Your task to perform on an android device: change the clock display to analog Image 0: 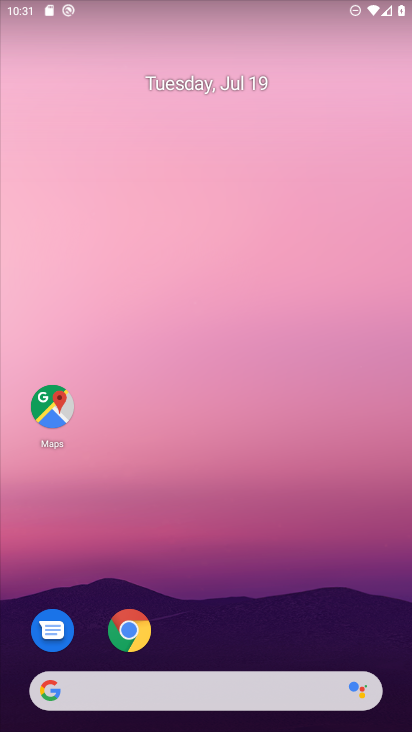
Step 0: drag from (182, 592) to (183, 154)
Your task to perform on an android device: change the clock display to analog Image 1: 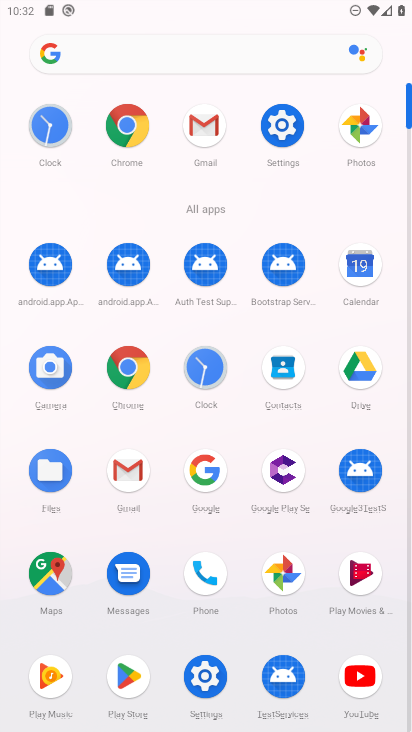
Step 1: click (217, 374)
Your task to perform on an android device: change the clock display to analog Image 2: 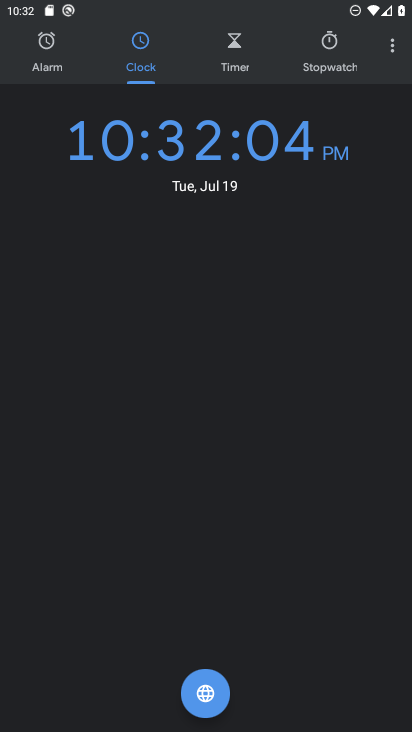
Step 2: click (395, 38)
Your task to perform on an android device: change the clock display to analog Image 3: 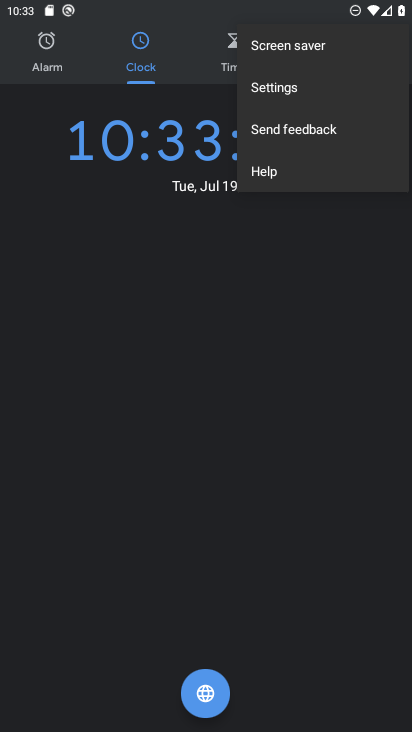
Step 3: press home button
Your task to perform on an android device: change the clock display to analog Image 4: 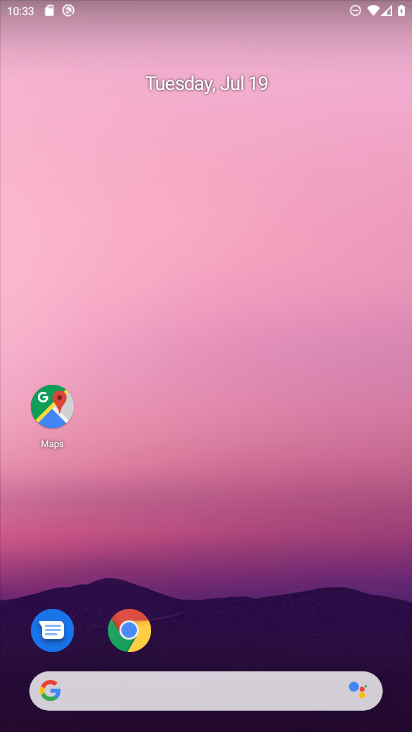
Step 4: drag from (225, 631) to (234, 172)
Your task to perform on an android device: change the clock display to analog Image 5: 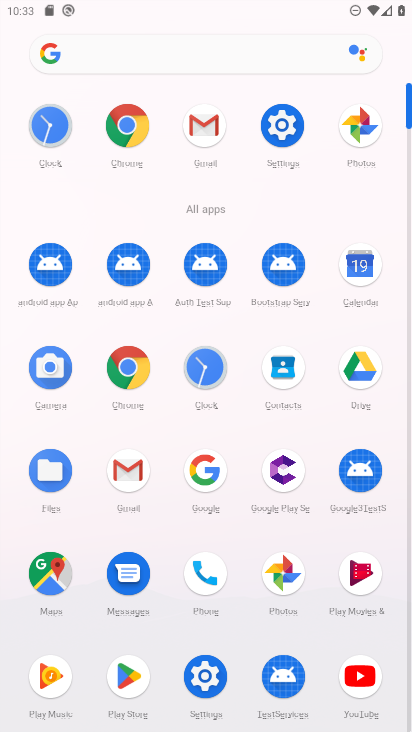
Step 5: click (218, 379)
Your task to perform on an android device: change the clock display to analog Image 6: 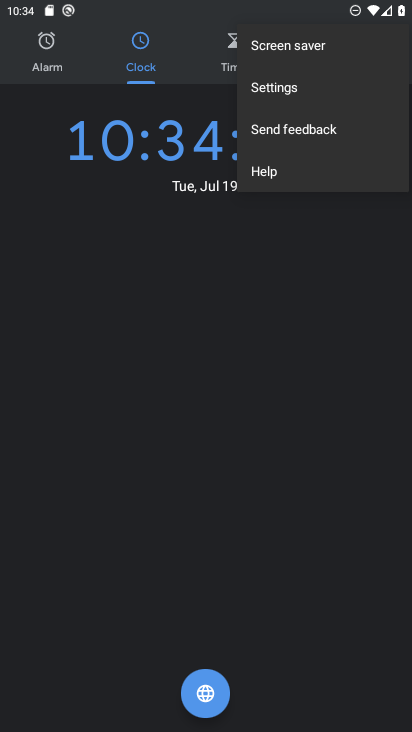
Step 6: click (315, 86)
Your task to perform on an android device: change the clock display to analog Image 7: 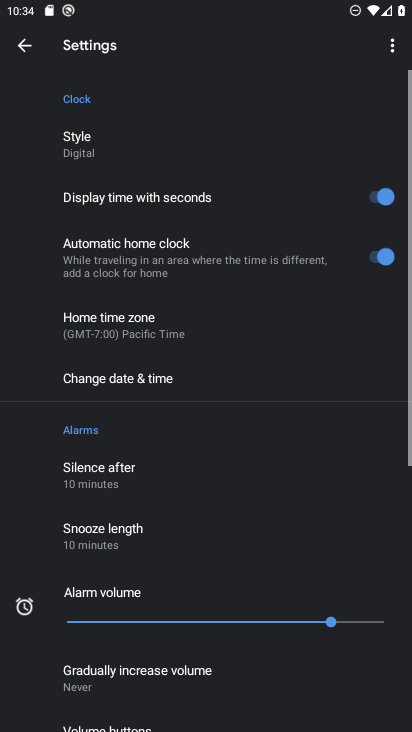
Step 7: click (133, 142)
Your task to perform on an android device: change the clock display to analog Image 8: 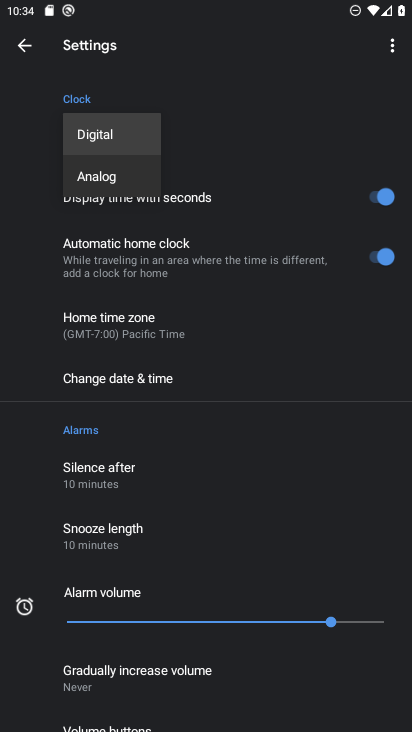
Step 8: click (111, 172)
Your task to perform on an android device: change the clock display to analog Image 9: 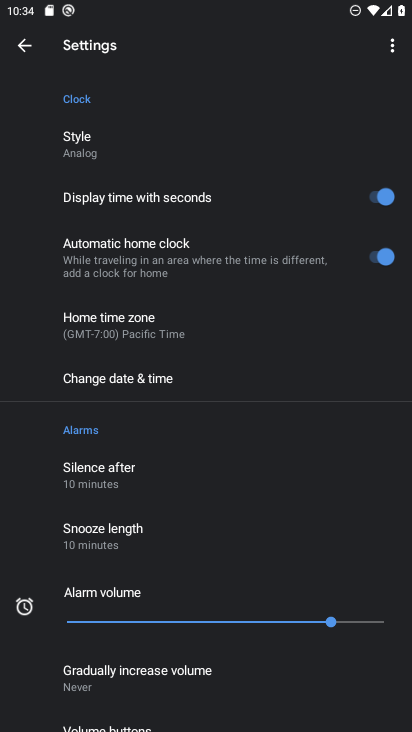
Step 9: task complete